Your task to perform on an android device: open app "Move to iOS" Image 0: 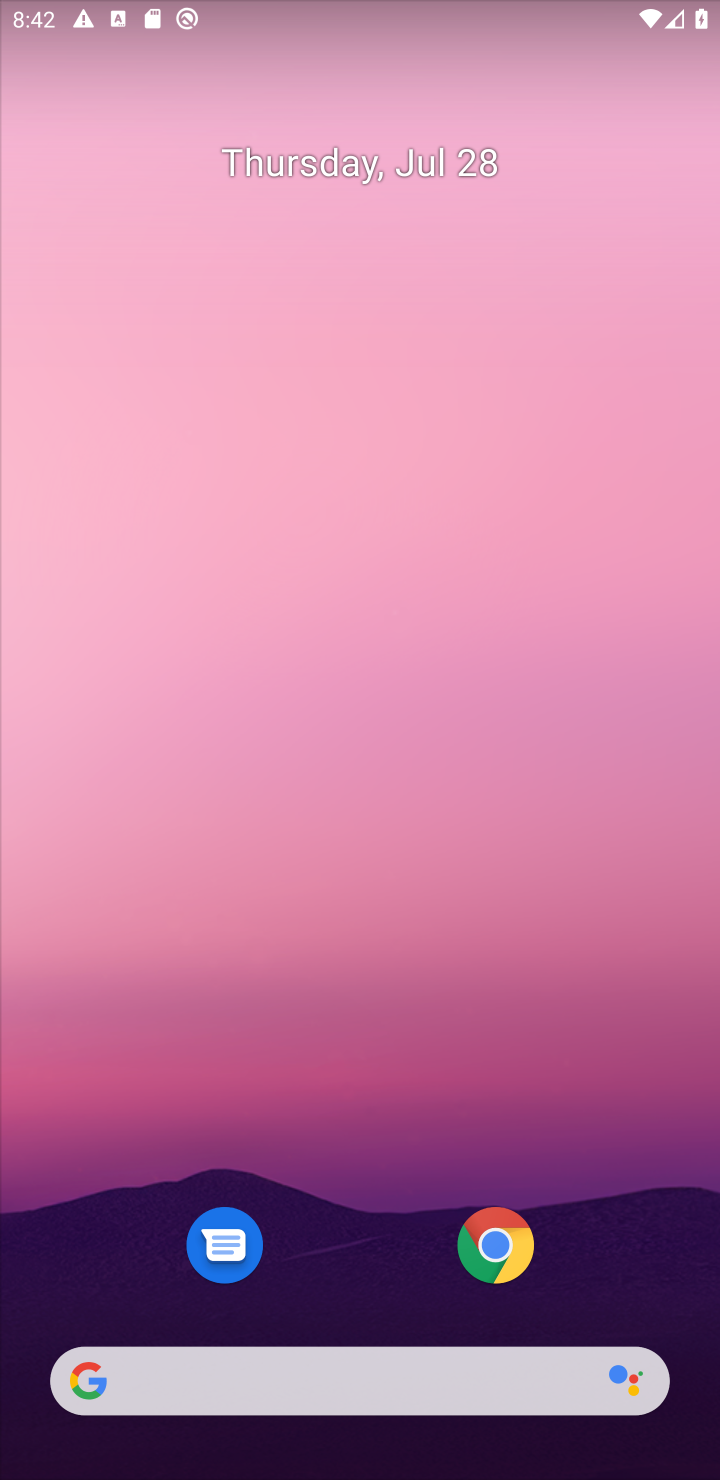
Step 0: press home button
Your task to perform on an android device: open app "Move to iOS" Image 1: 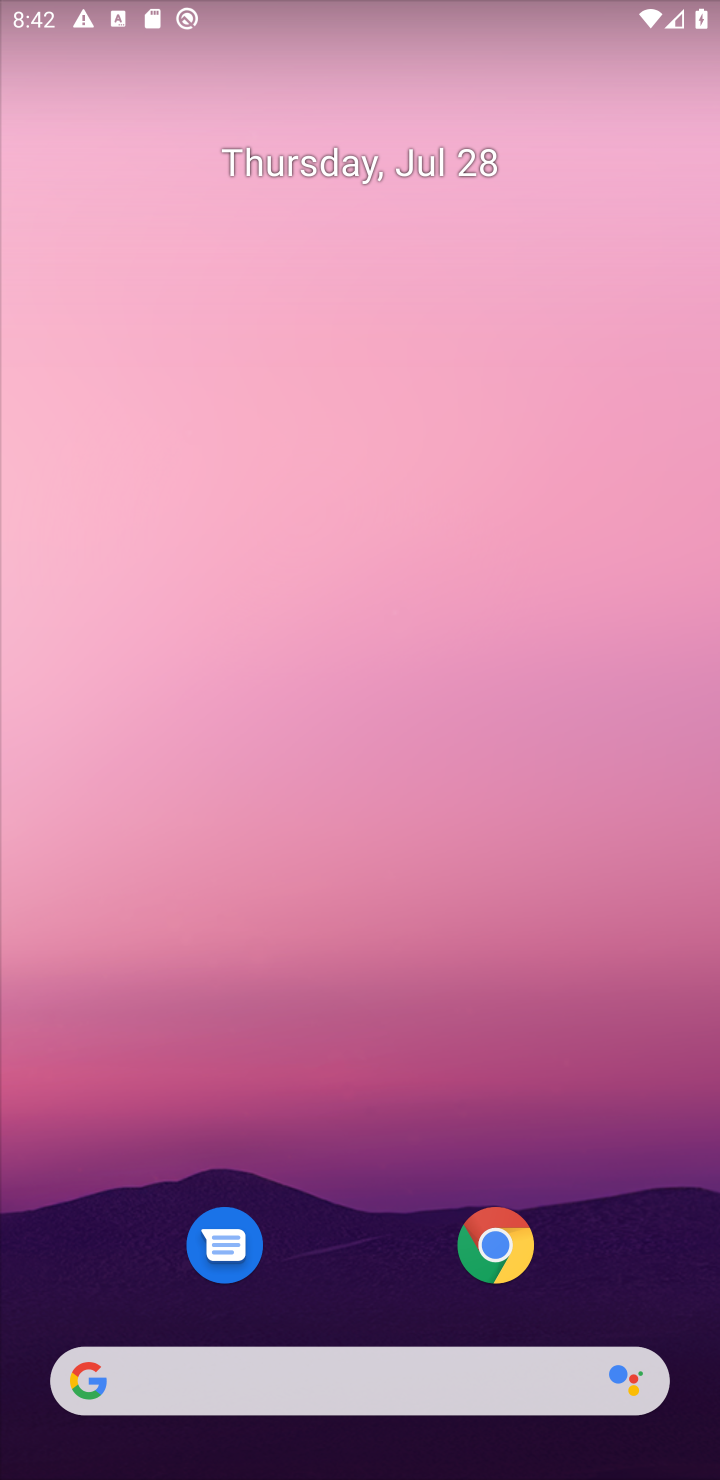
Step 1: drag from (373, 1262) to (377, 131)
Your task to perform on an android device: open app "Move to iOS" Image 2: 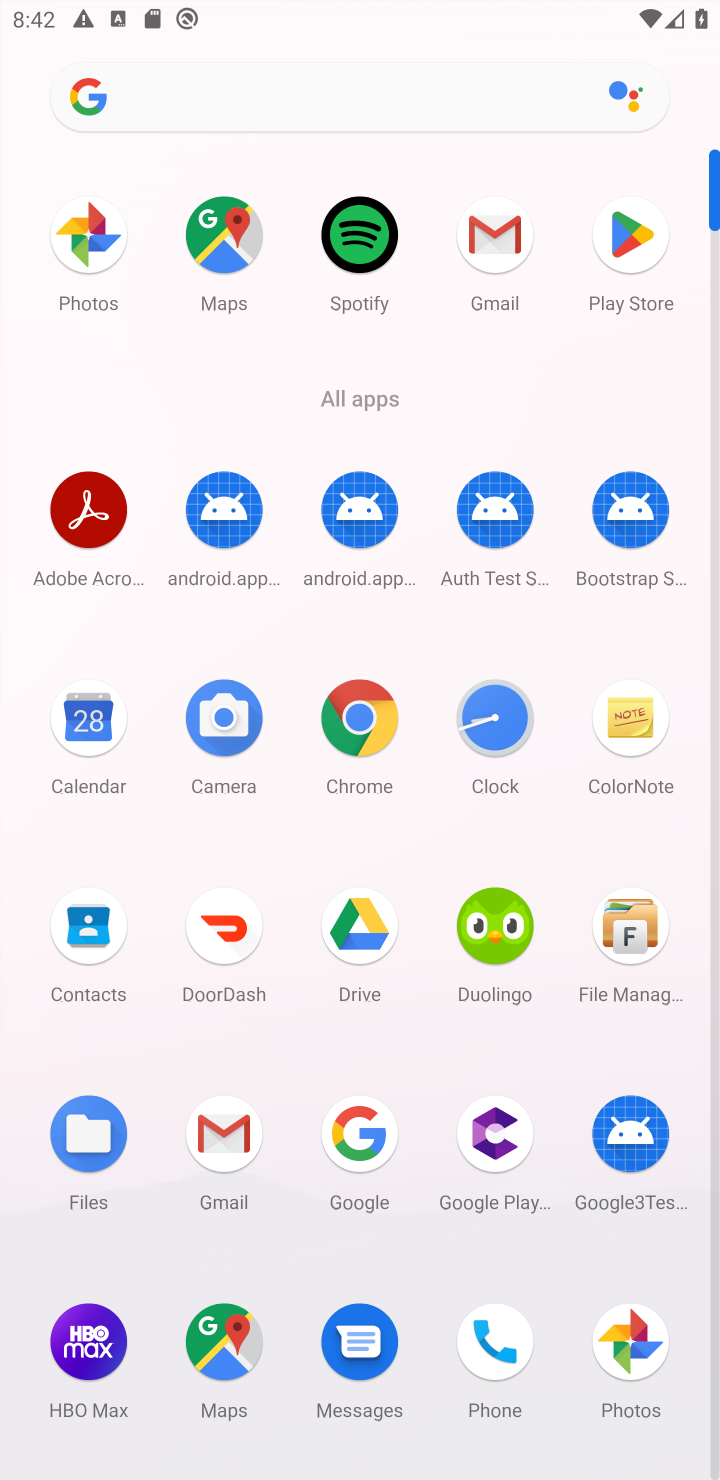
Step 2: click (612, 236)
Your task to perform on an android device: open app "Move to iOS" Image 3: 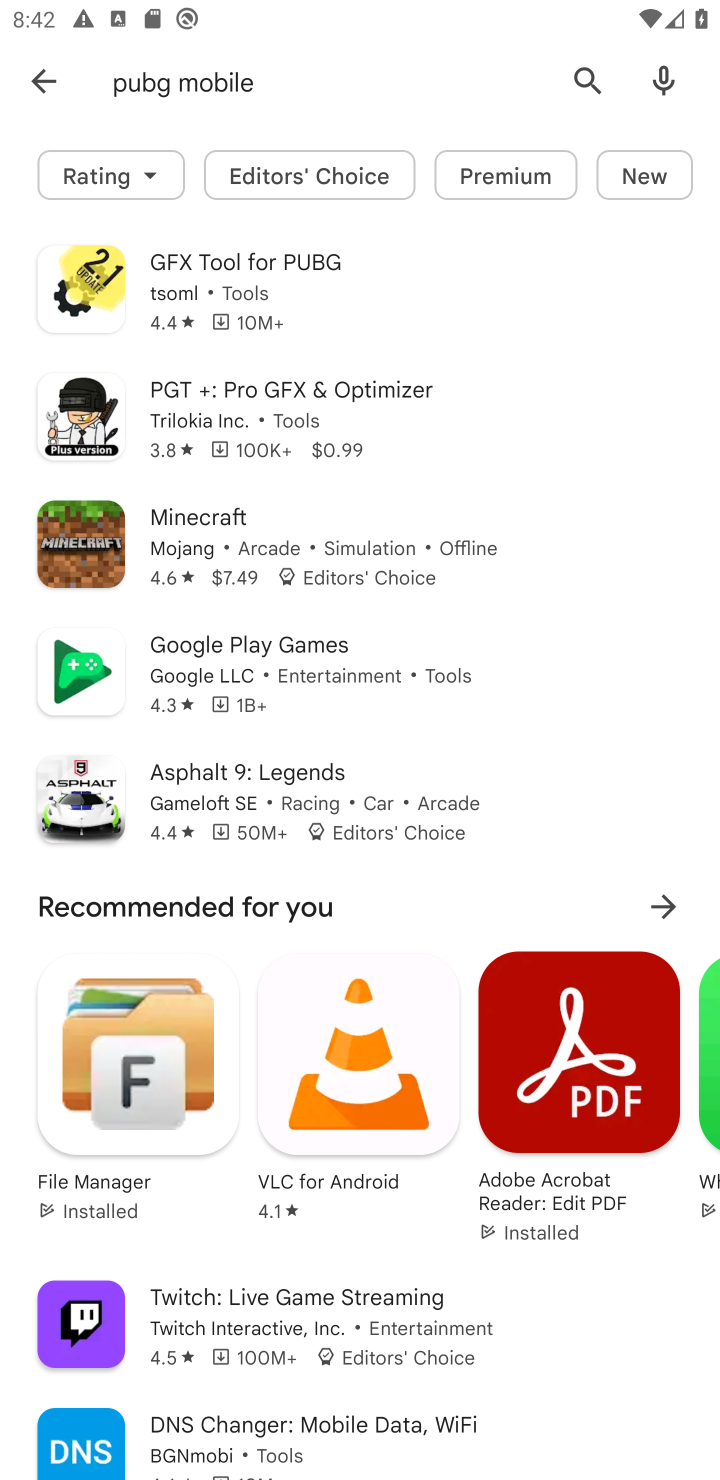
Step 3: click (590, 74)
Your task to perform on an android device: open app "Move to iOS" Image 4: 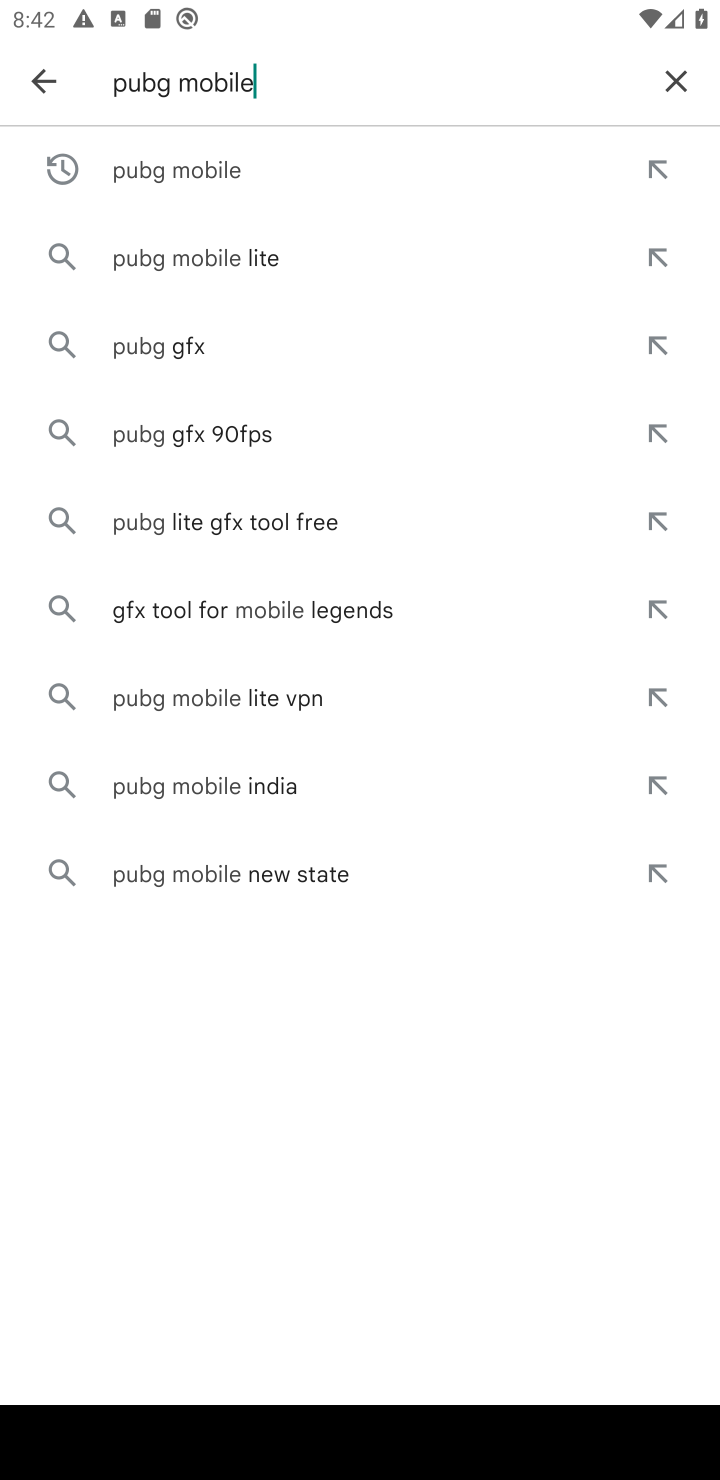
Step 4: click (686, 74)
Your task to perform on an android device: open app "Move to iOS" Image 5: 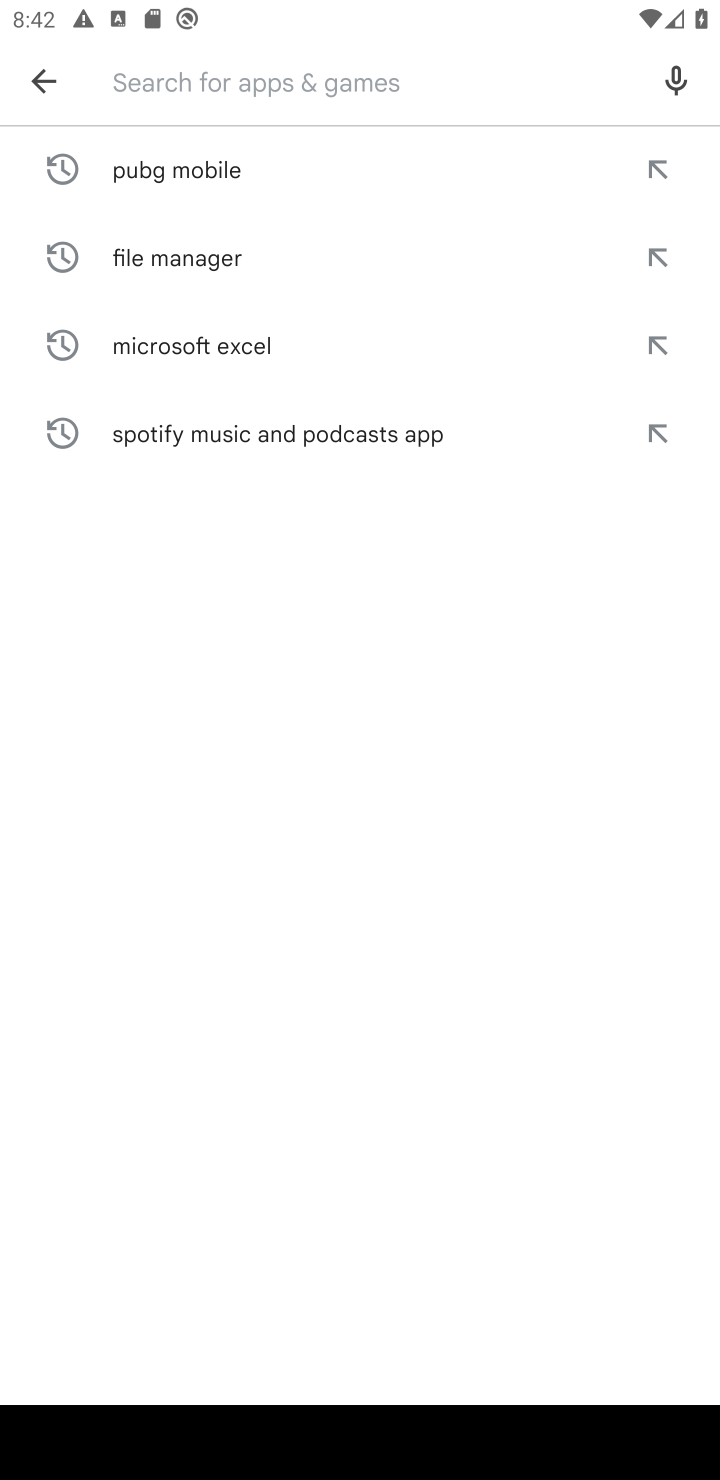
Step 5: type "move to ios"
Your task to perform on an android device: open app "Move to iOS" Image 6: 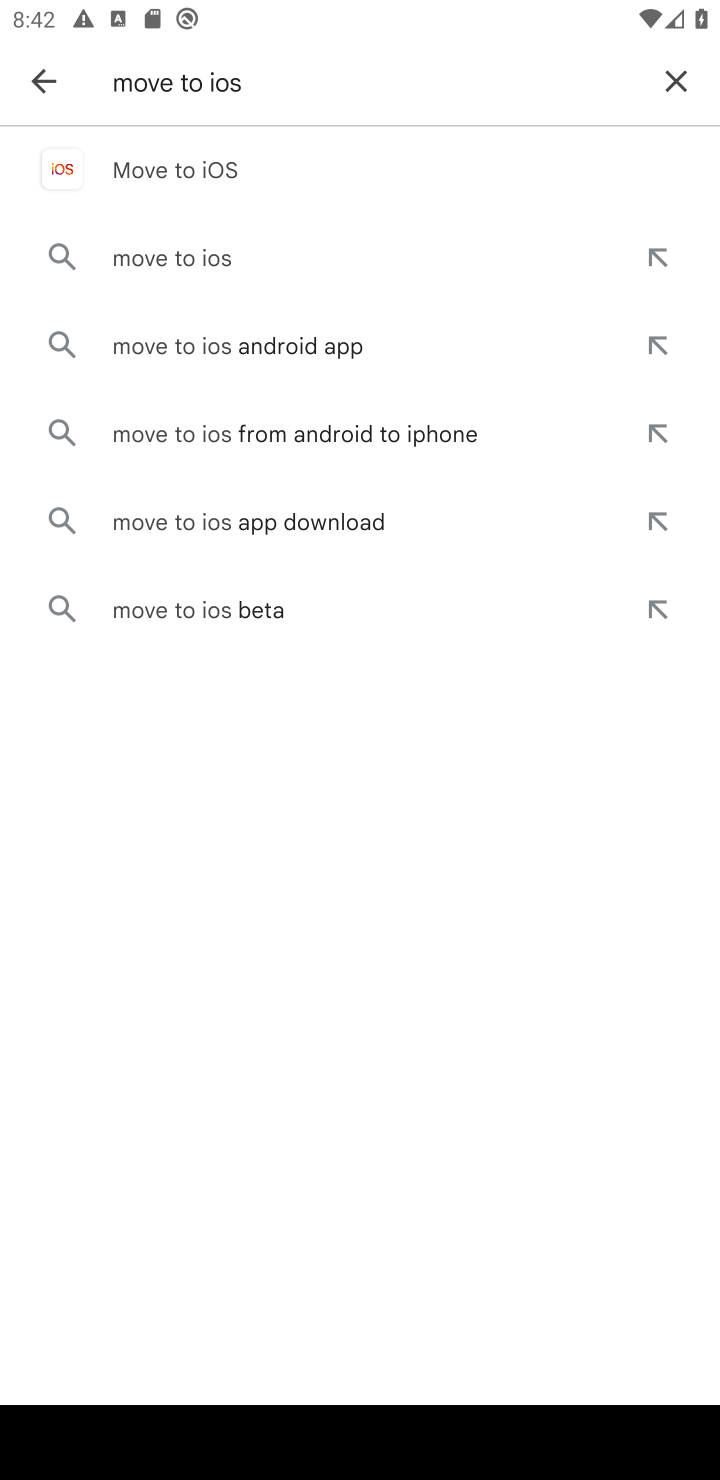
Step 6: click (207, 147)
Your task to perform on an android device: open app "Move to iOS" Image 7: 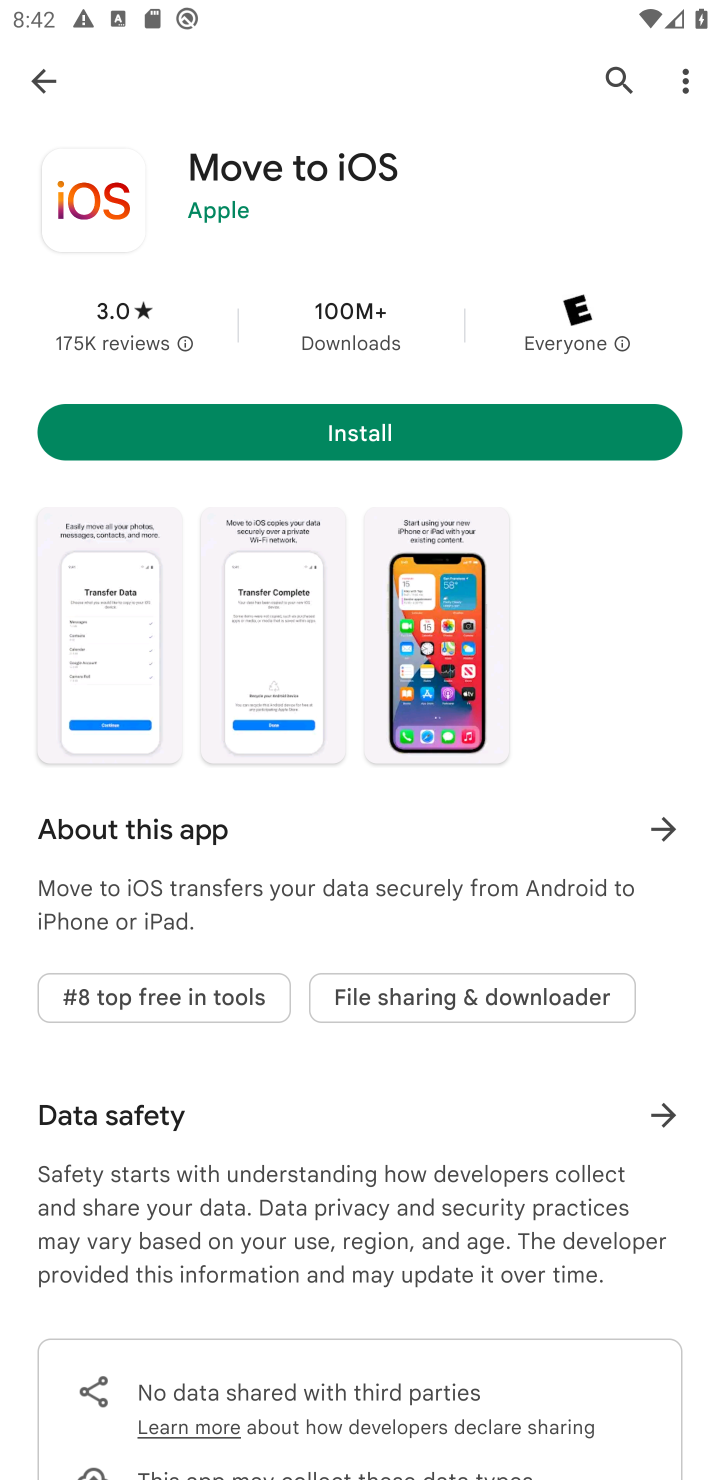
Step 7: task complete